Your task to perform on an android device: change alarm snooze length Image 0: 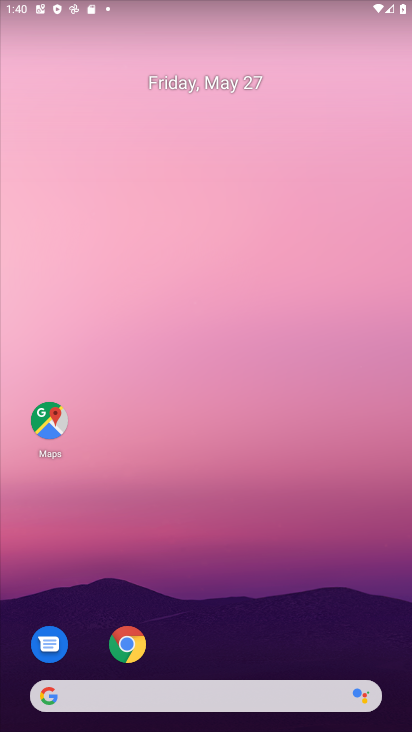
Step 0: drag from (329, 641) to (300, 22)
Your task to perform on an android device: change alarm snooze length Image 1: 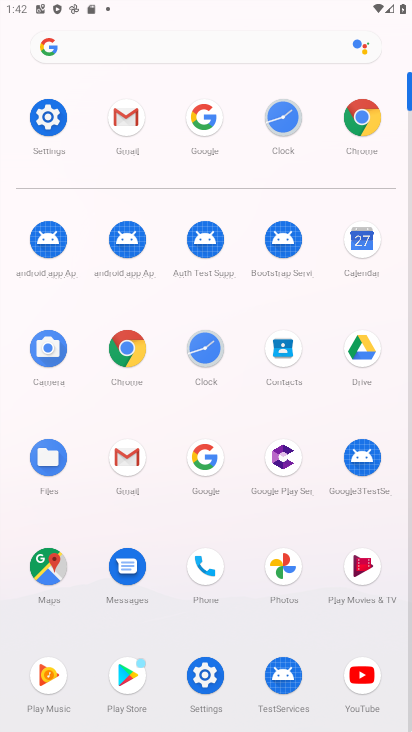
Step 1: click (216, 349)
Your task to perform on an android device: change alarm snooze length Image 2: 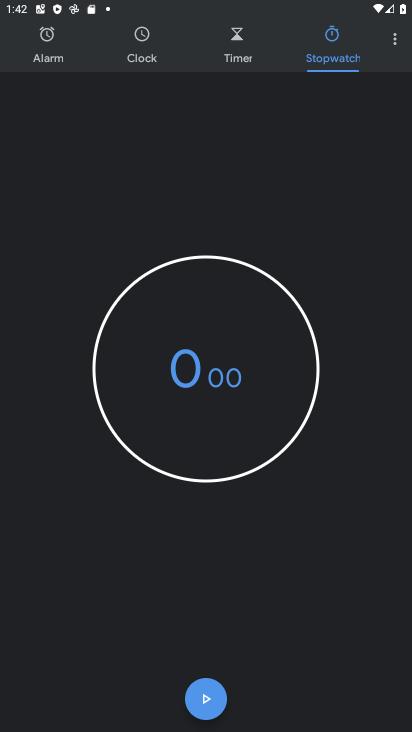
Step 2: click (389, 37)
Your task to perform on an android device: change alarm snooze length Image 3: 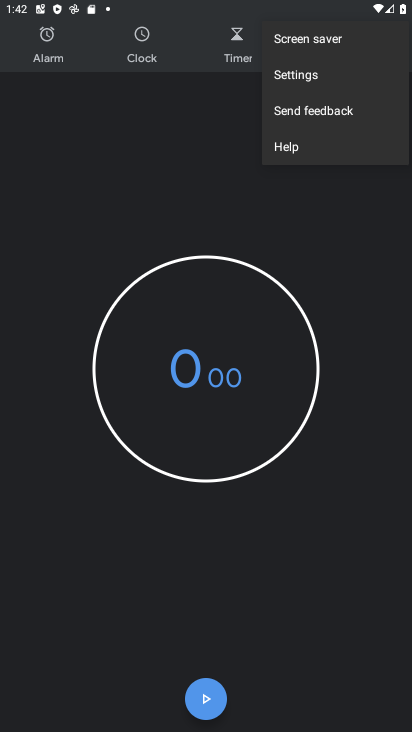
Step 3: click (315, 72)
Your task to perform on an android device: change alarm snooze length Image 4: 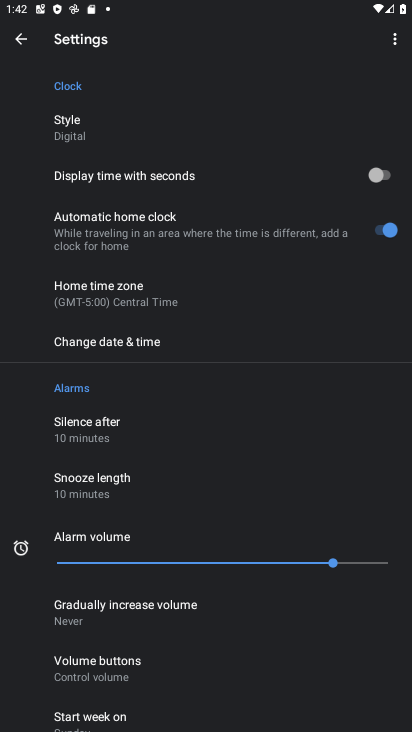
Step 4: click (97, 485)
Your task to perform on an android device: change alarm snooze length Image 5: 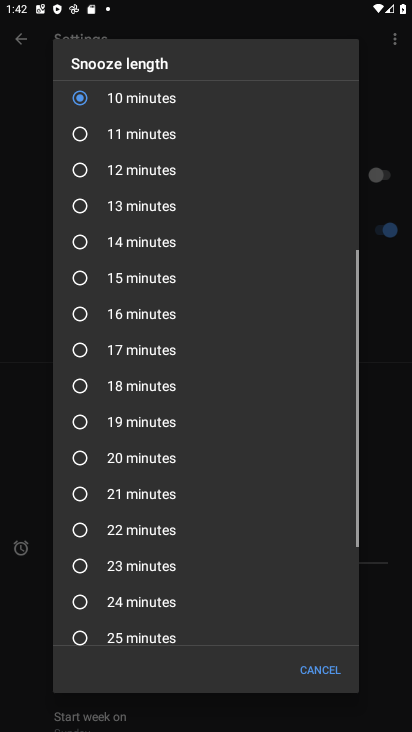
Step 5: click (141, 393)
Your task to perform on an android device: change alarm snooze length Image 6: 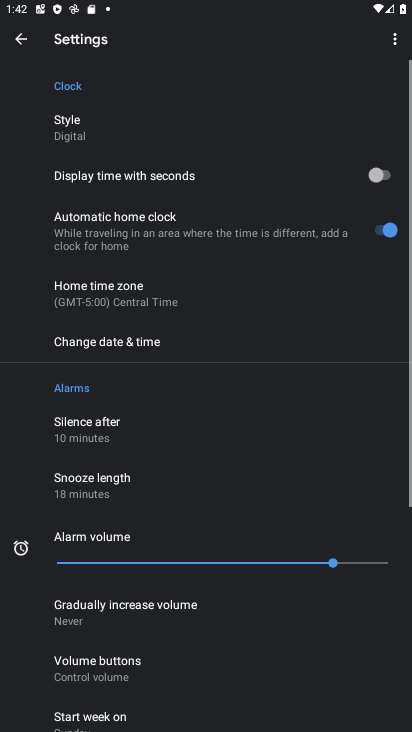
Step 6: task complete